Your task to perform on an android device: show emergency info Image 0: 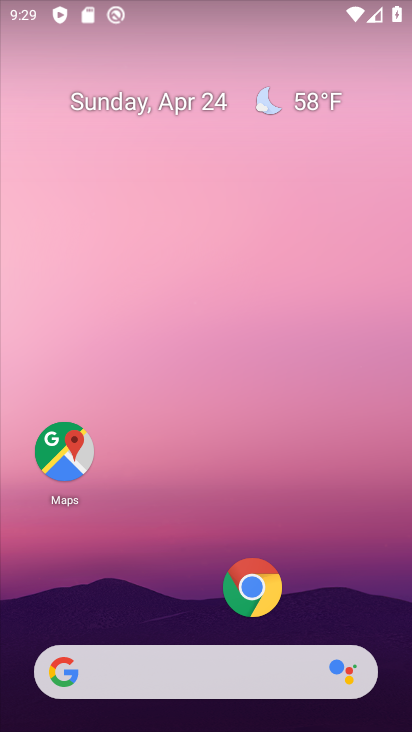
Step 0: drag from (120, 618) to (241, 122)
Your task to perform on an android device: show emergency info Image 1: 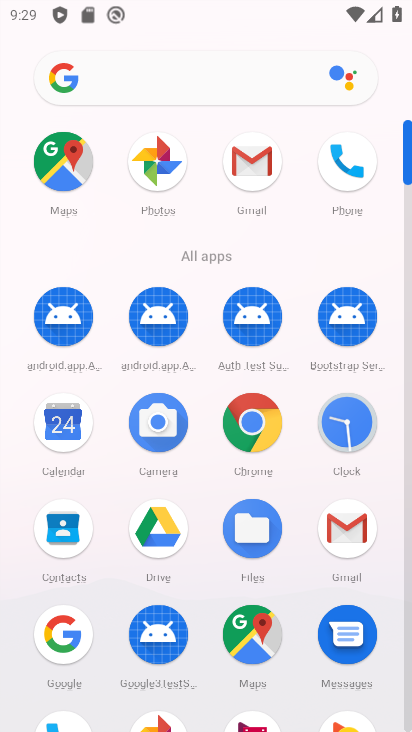
Step 1: drag from (199, 574) to (266, 338)
Your task to perform on an android device: show emergency info Image 2: 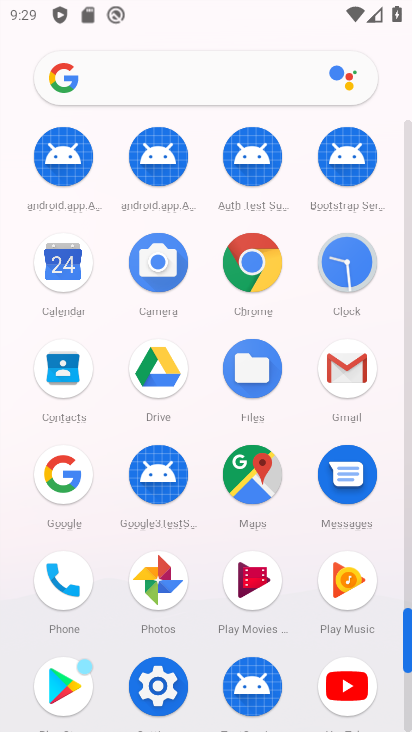
Step 2: click (157, 697)
Your task to perform on an android device: show emergency info Image 3: 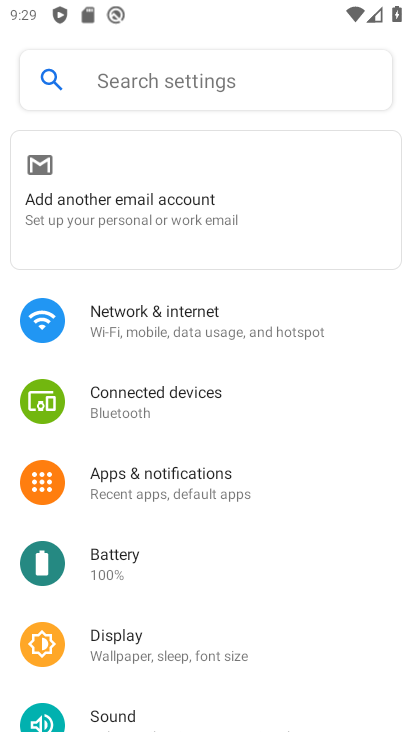
Step 3: drag from (183, 659) to (275, 245)
Your task to perform on an android device: show emergency info Image 4: 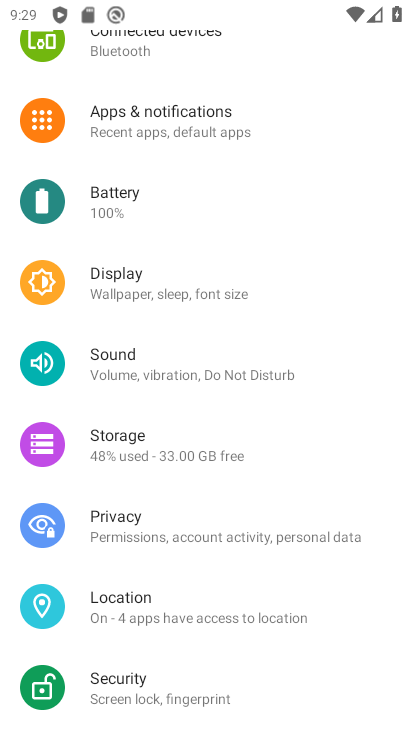
Step 4: drag from (180, 658) to (349, 86)
Your task to perform on an android device: show emergency info Image 5: 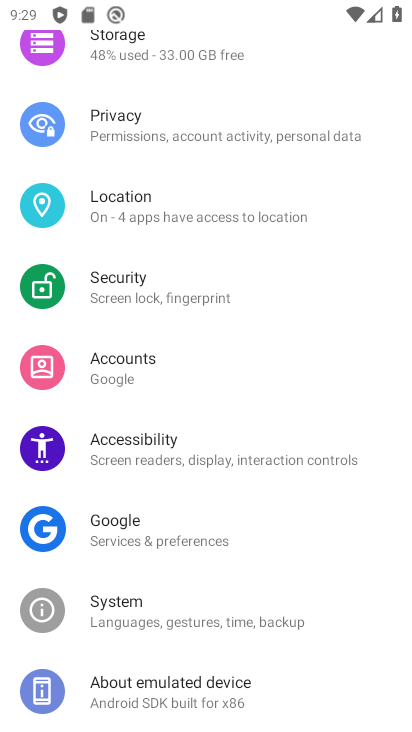
Step 5: drag from (212, 548) to (306, 169)
Your task to perform on an android device: show emergency info Image 6: 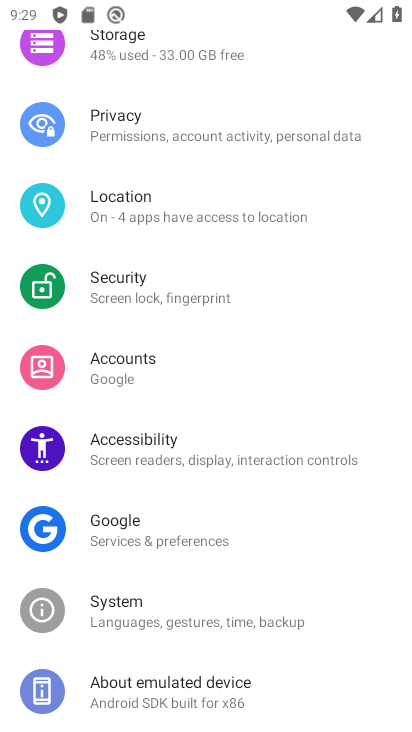
Step 6: click (230, 711)
Your task to perform on an android device: show emergency info Image 7: 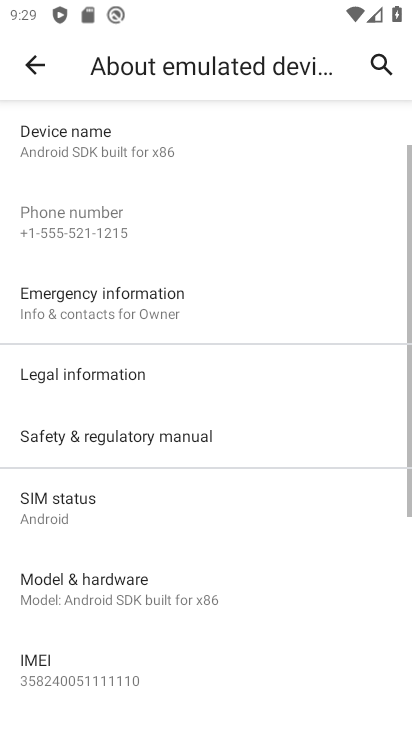
Step 7: click (211, 328)
Your task to perform on an android device: show emergency info Image 8: 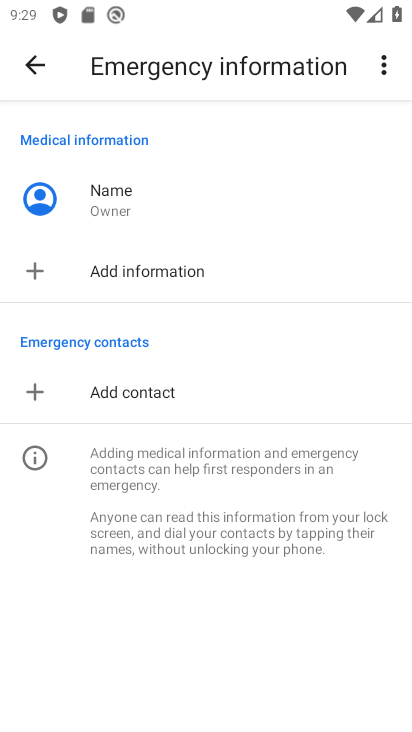
Step 8: task complete